Your task to perform on an android device: Open network settings Image 0: 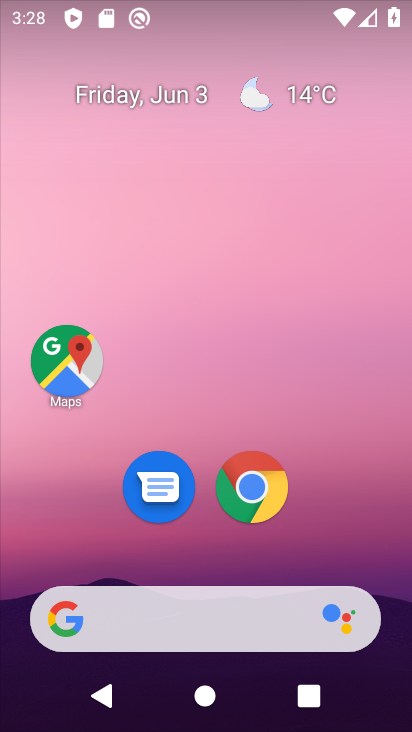
Step 0: click (270, 482)
Your task to perform on an android device: Open network settings Image 1: 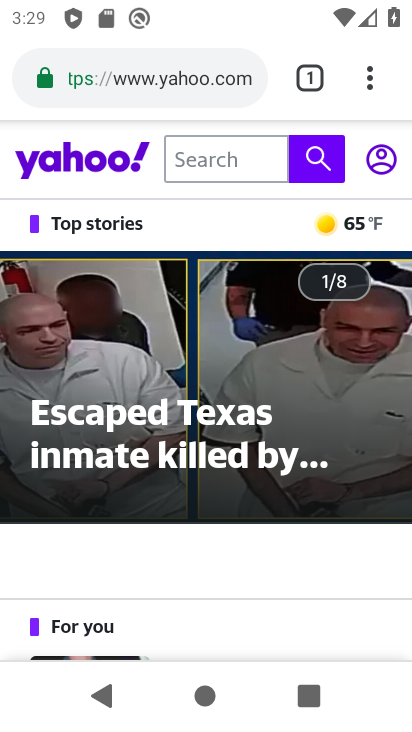
Step 1: press back button
Your task to perform on an android device: Open network settings Image 2: 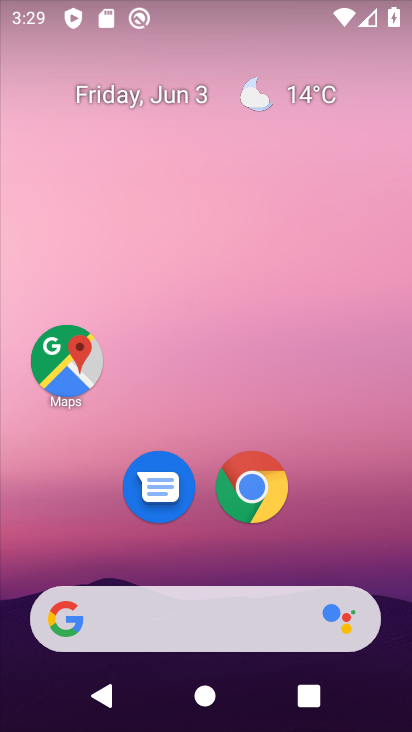
Step 2: drag from (184, 567) to (258, 41)
Your task to perform on an android device: Open network settings Image 3: 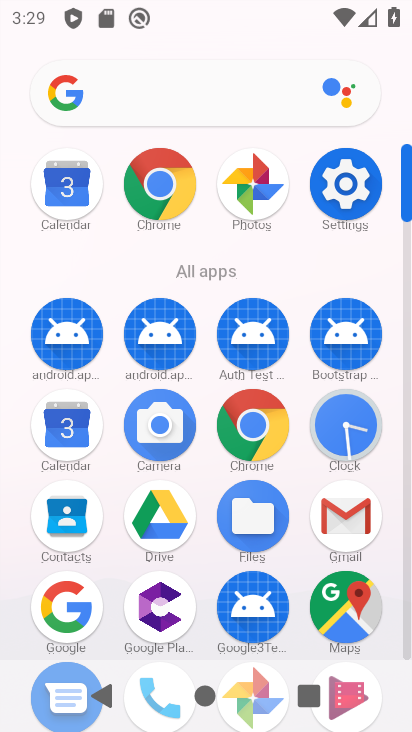
Step 3: click (357, 179)
Your task to perform on an android device: Open network settings Image 4: 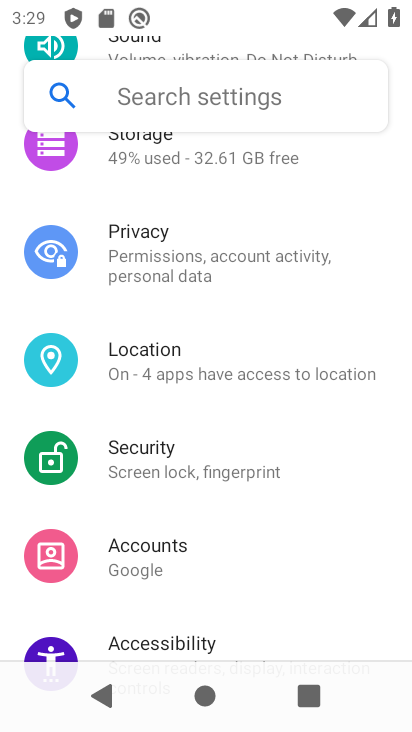
Step 4: drag from (240, 222) to (208, 657)
Your task to perform on an android device: Open network settings Image 5: 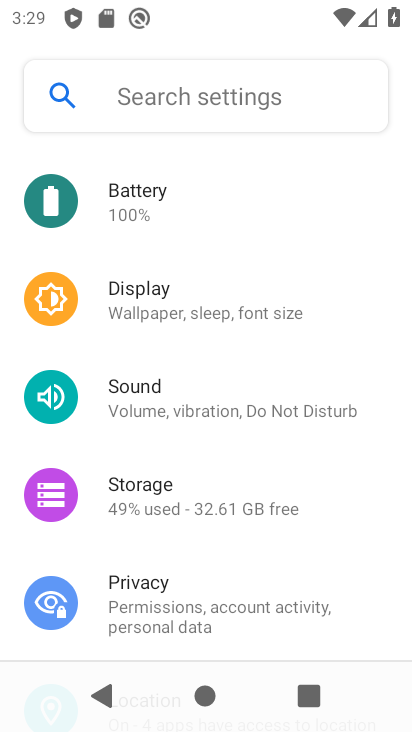
Step 5: drag from (125, 201) to (123, 682)
Your task to perform on an android device: Open network settings Image 6: 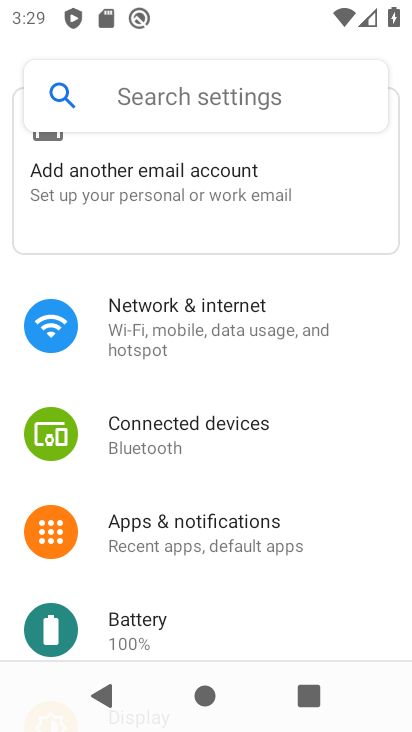
Step 6: click (161, 302)
Your task to perform on an android device: Open network settings Image 7: 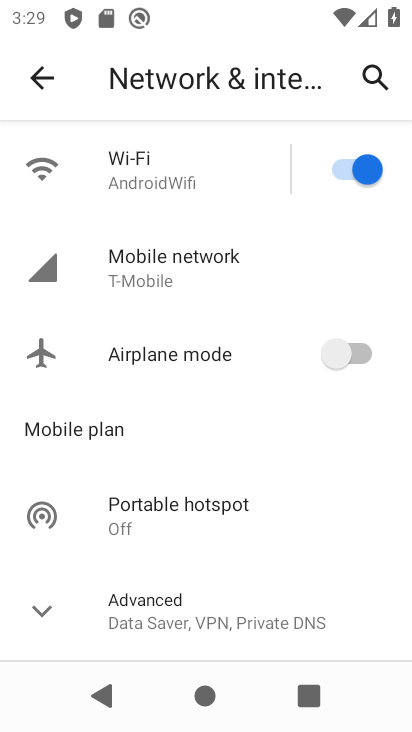
Step 7: task complete